Your task to perform on an android device: Search for sushi restaurants on Maps Image 0: 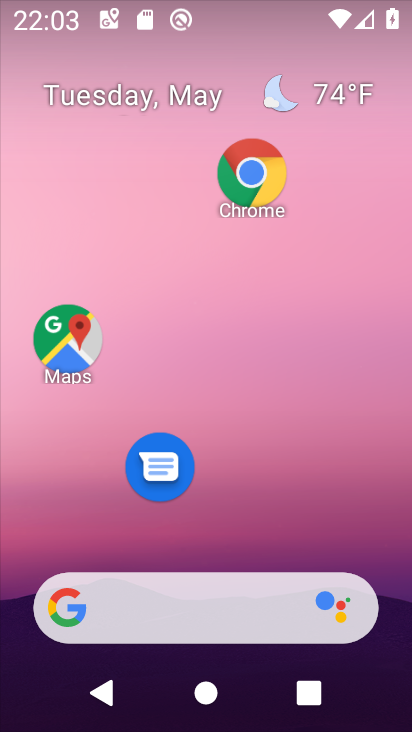
Step 0: drag from (323, 522) to (333, 134)
Your task to perform on an android device: Search for sushi restaurants on Maps Image 1: 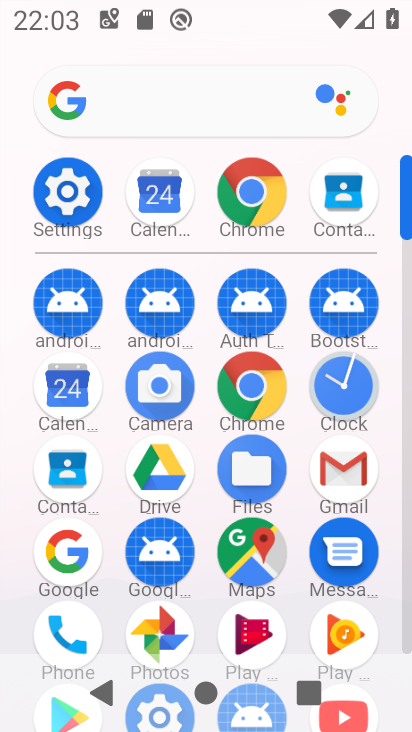
Step 1: click (239, 551)
Your task to perform on an android device: Search for sushi restaurants on Maps Image 2: 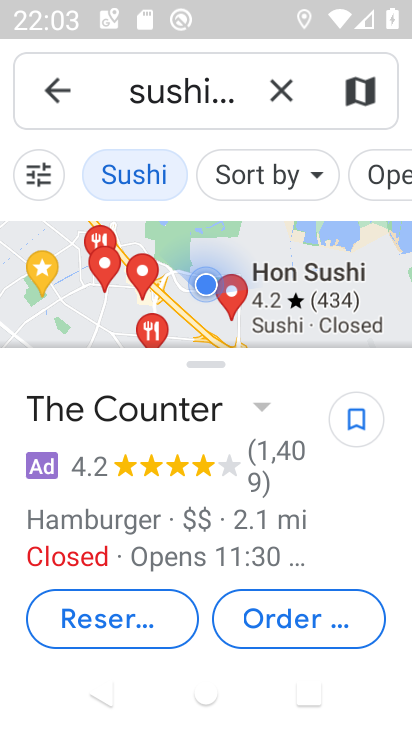
Step 2: click (280, 93)
Your task to perform on an android device: Search for sushi restaurants on Maps Image 3: 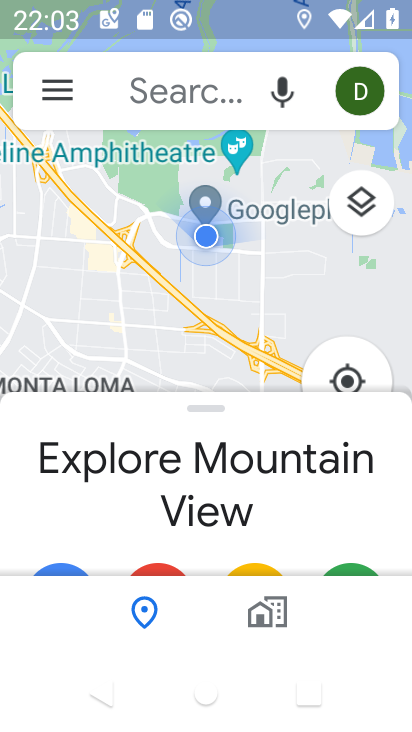
Step 3: click (198, 95)
Your task to perform on an android device: Search for sushi restaurants on Maps Image 4: 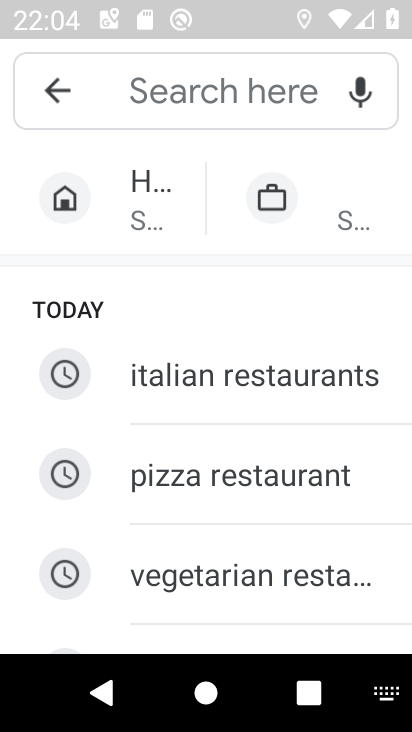
Step 4: type "sushi restaurants "
Your task to perform on an android device: Search for sushi restaurants on Maps Image 5: 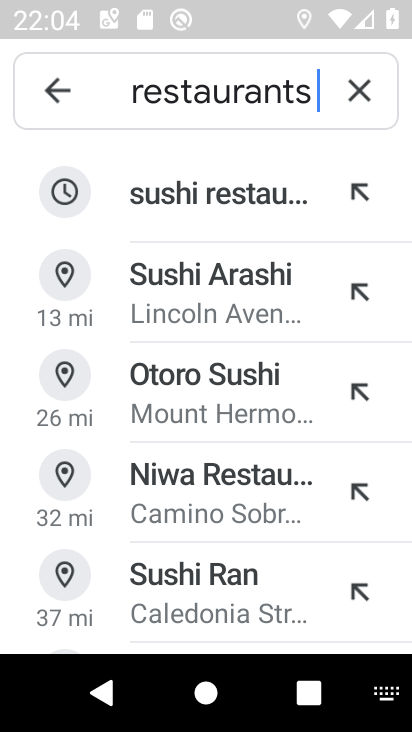
Step 5: click (253, 184)
Your task to perform on an android device: Search for sushi restaurants on Maps Image 6: 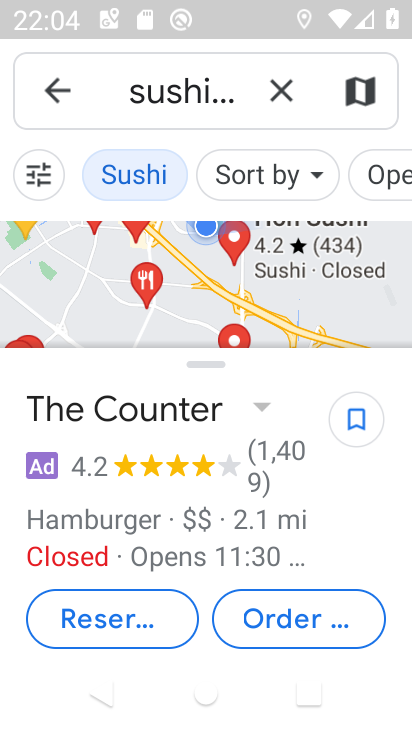
Step 6: task complete